Your task to perform on an android device: turn on improve location accuracy Image 0: 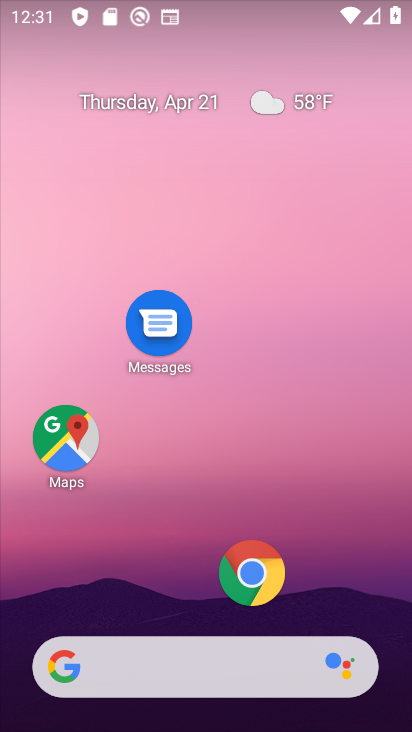
Step 0: drag from (170, 441) to (152, 63)
Your task to perform on an android device: turn on improve location accuracy Image 1: 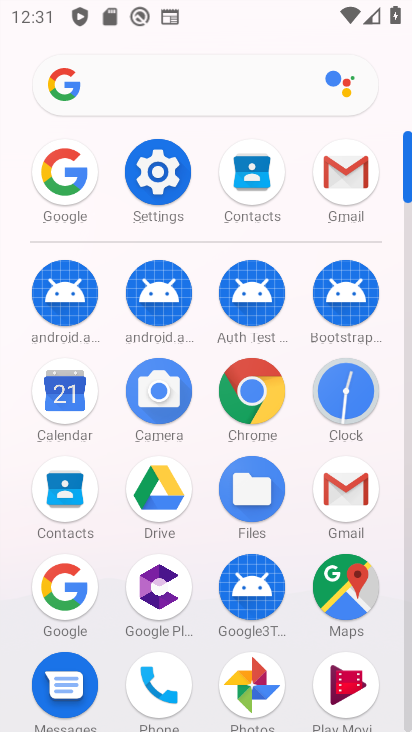
Step 1: click (152, 173)
Your task to perform on an android device: turn on improve location accuracy Image 2: 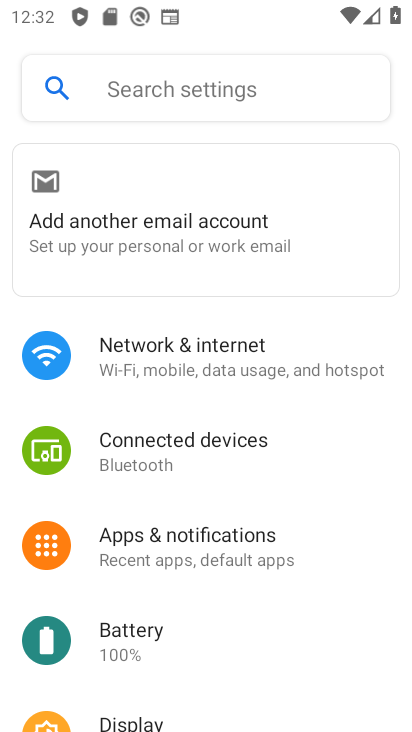
Step 2: drag from (208, 601) to (222, 321)
Your task to perform on an android device: turn on improve location accuracy Image 3: 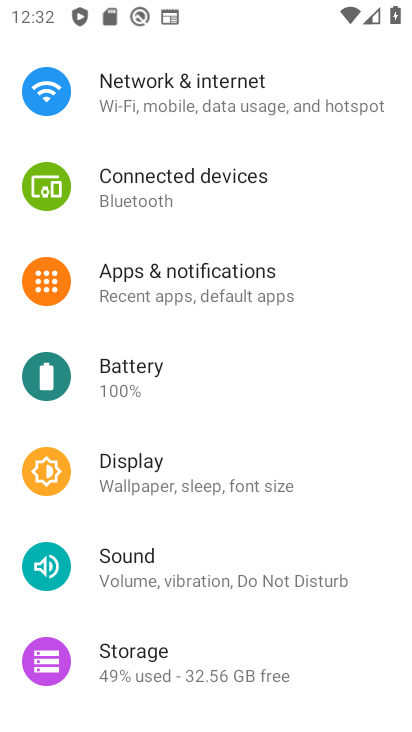
Step 3: drag from (223, 560) to (210, 135)
Your task to perform on an android device: turn on improve location accuracy Image 4: 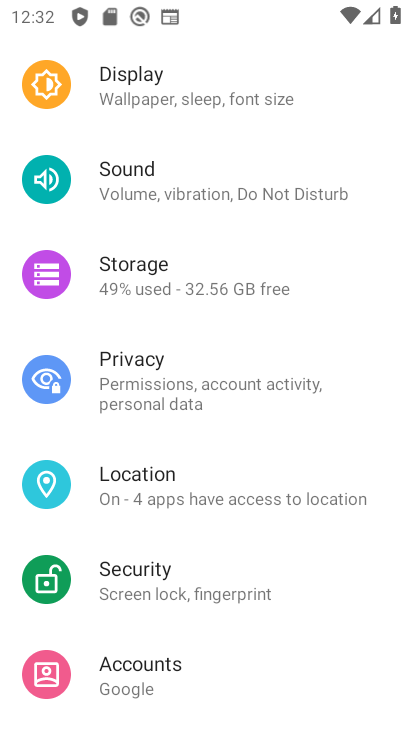
Step 4: click (133, 483)
Your task to perform on an android device: turn on improve location accuracy Image 5: 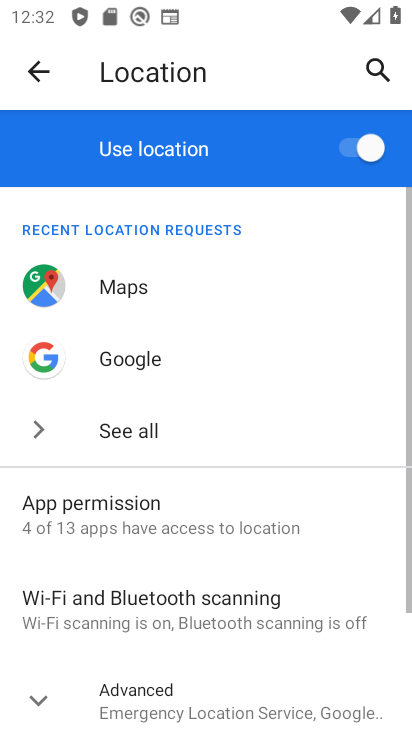
Step 5: drag from (233, 529) to (225, 337)
Your task to perform on an android device: turn on improve location accuracy Image 6: 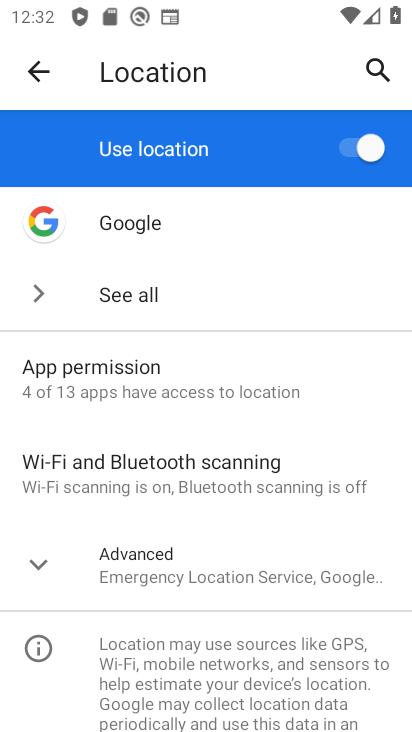
Step 6: click (129, 583)
Your task to perform on an android device: turn on improve location accuracy Image 7: 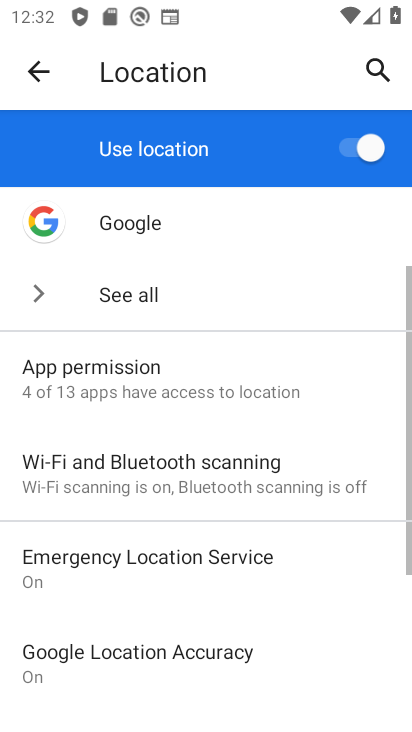
Step 7: task complete